Your task to perform on an android device: visit the assistant section in the google photos Image 0: 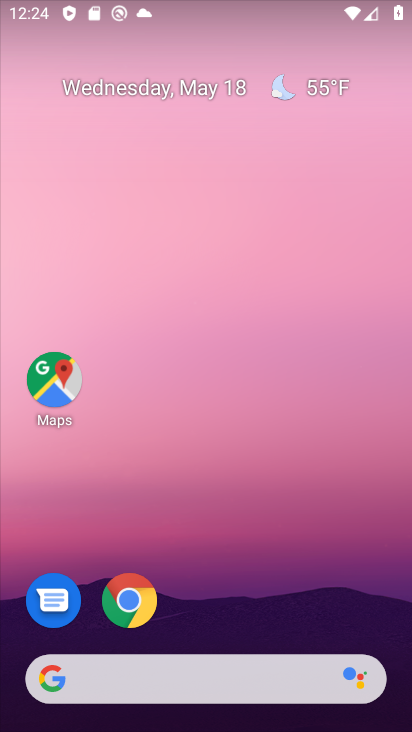
Step 0: drag from (257, 676) to (235, 52)
Your task to perform on an android device: visit the assistant section in the google photos Image 1: 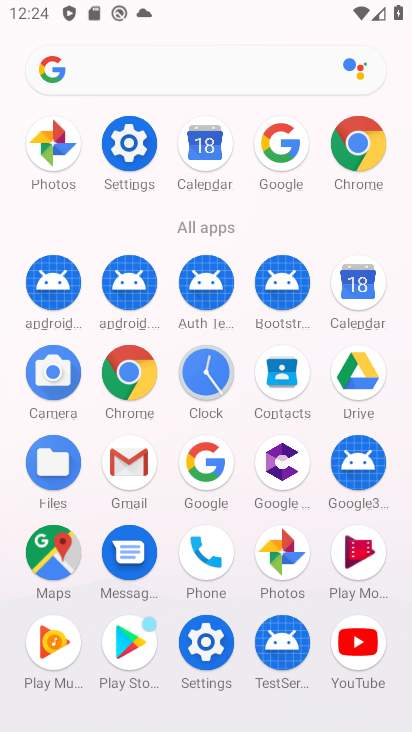
Step 1: click (276, 572)
Your task to perform on an android device: visit the assistant section in the google photos Image 2: 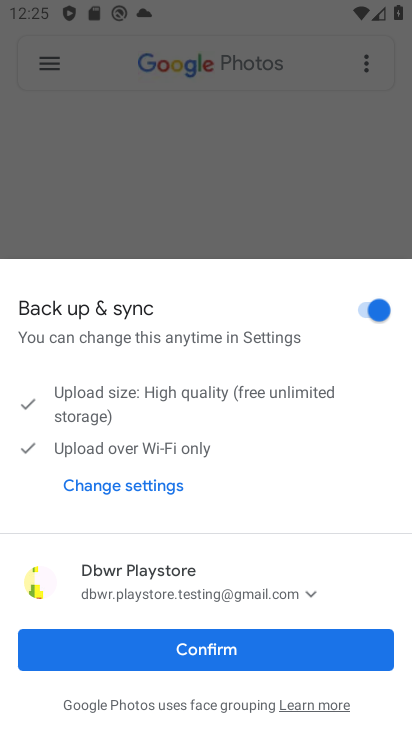
Step 2: click (238, 644)
Your task to perform on an android device: visit the assistant section in the google photos Image 3: 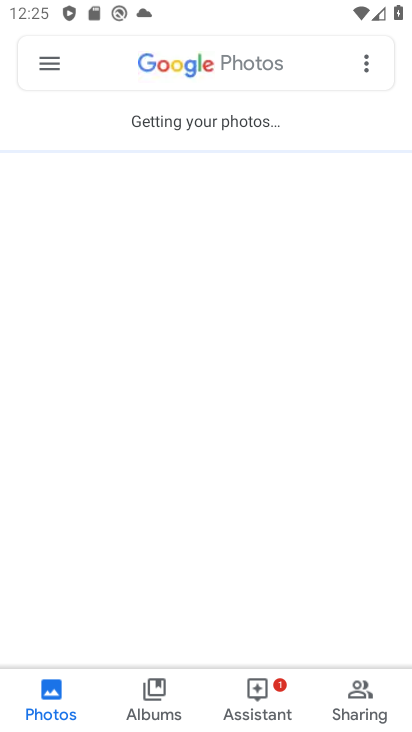
Step 3: click (264, 697)
Your task to perform on an android device: visit the assistant section in the google photos Image 4: 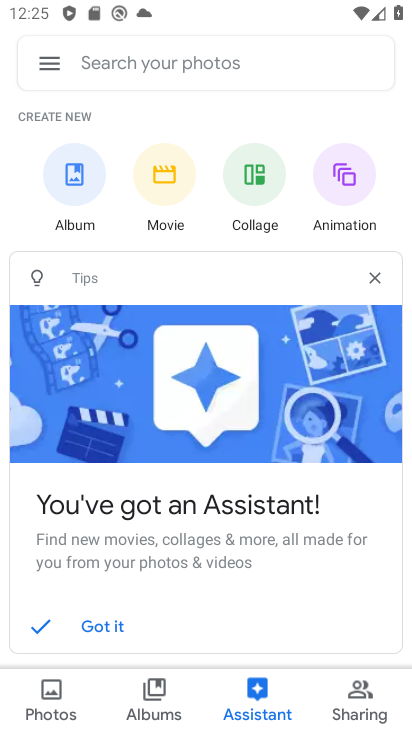
Step 4: task complete